Your task to perform on an android device: Open calendar and show me the fourth week of next month Image 0: 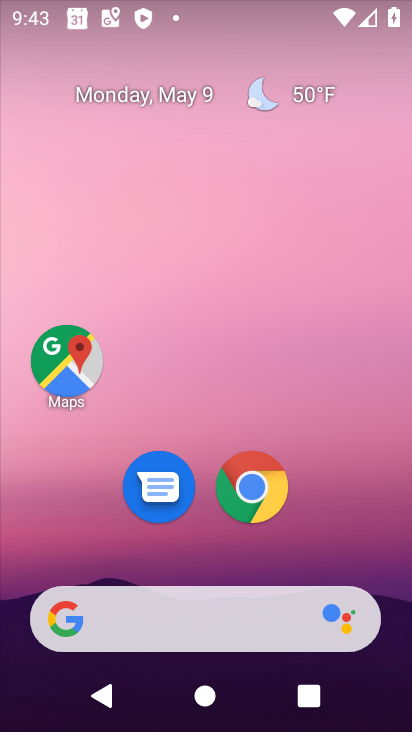
Step 0: drag from (50, 493) to (195, 159)
Your task to perform on an android device: Open calendar and show me the fourth week of next month Image 1: 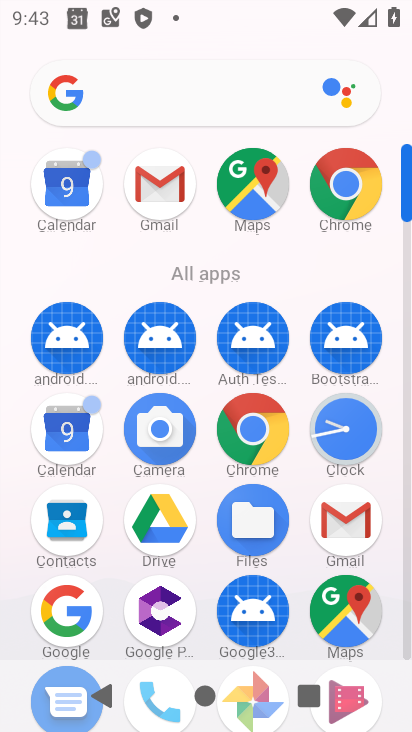
Step 1: click (50, 418)
Your task to perform on an android device: Open calendar and show me the fourth week of next month Image 2: 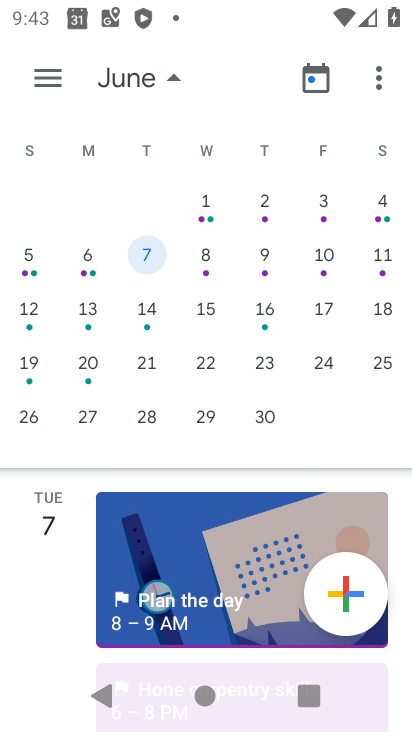
Step 2: drag from (375, 321) to (8, 267)
Your task to perform on an android device: Open calendar and show me the fourth week of next month Image 3: 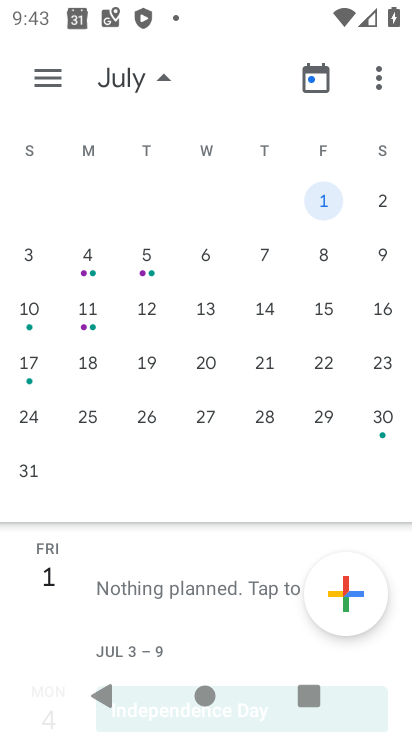
Step 3: drag from (75, 260) to (409, 251)
Your task to perform on an android device: Open calendar and show me the fourth week of next month Image 4: 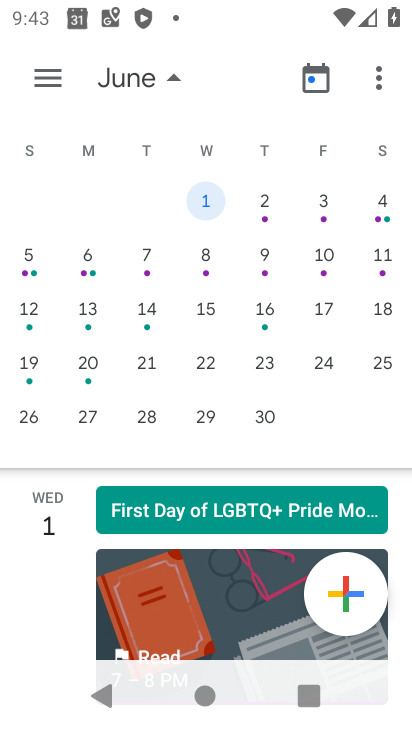
Step 4: click (191, 359)
Your task to perform on an android device: Open calendar and show me the fourth week of next month Image 5: 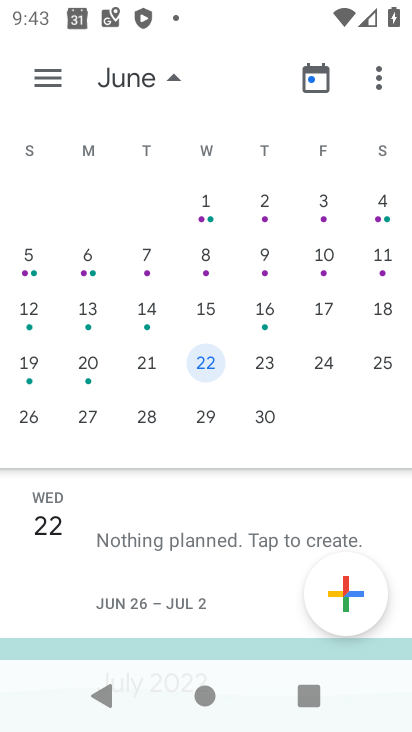
Step 5: click (146, 329)
Your task to perform on an android device: Open calendar and show me the fourth week of next month Image 6: 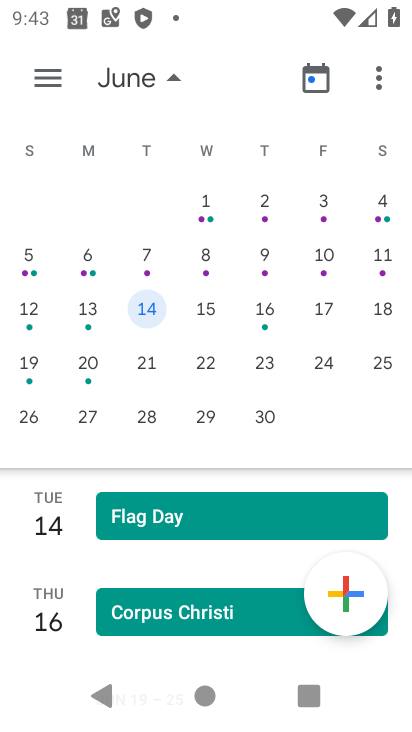
Step 6: click (100, 313)
Your task to perform on an android device: Open calendar and show me the fourth week of next month Image 7: 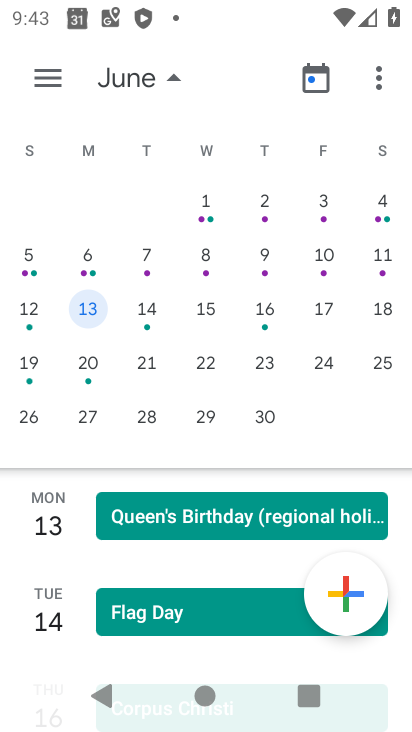
Step 7: click (147, 362)
Your task to perform on an android device: Open calendar and show me the fourth week of next month Image 8: 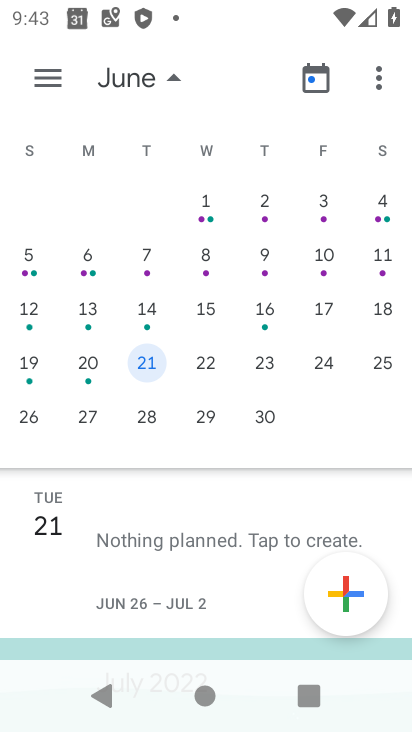
Step 8: click (214, 365)
Your task to perform on an android device: Open calendar and show me the fourth week of next month Image 9: 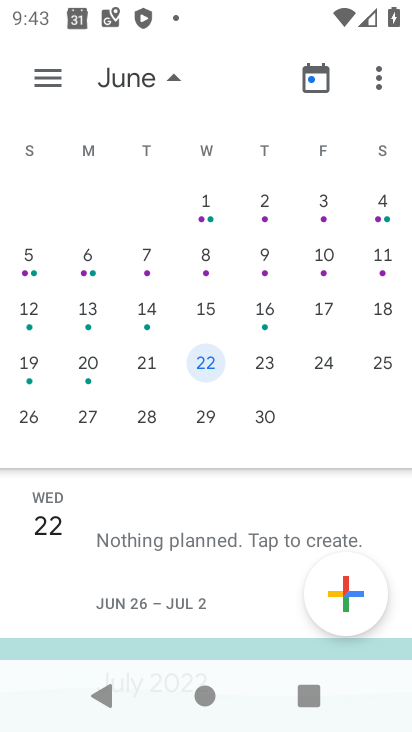
Step 9: click (253, 363)
Your task to perform on an android device: Open calendar and show me the fourth week of next month Image 10: 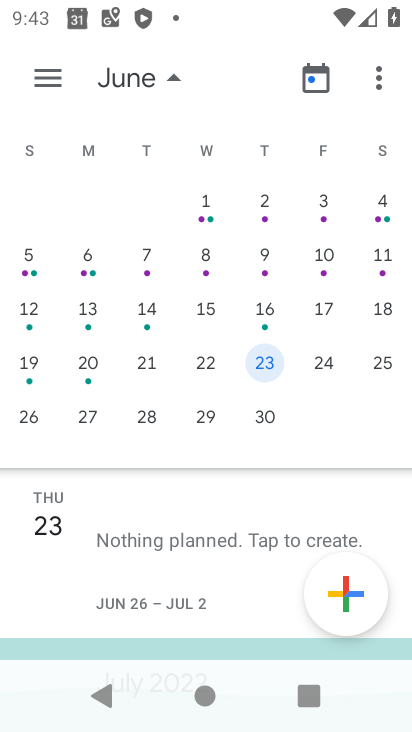
Step 10: click (336, 363)
Your task to perform on an android device: Open calendar and show me the fourth week of next month Image 11: 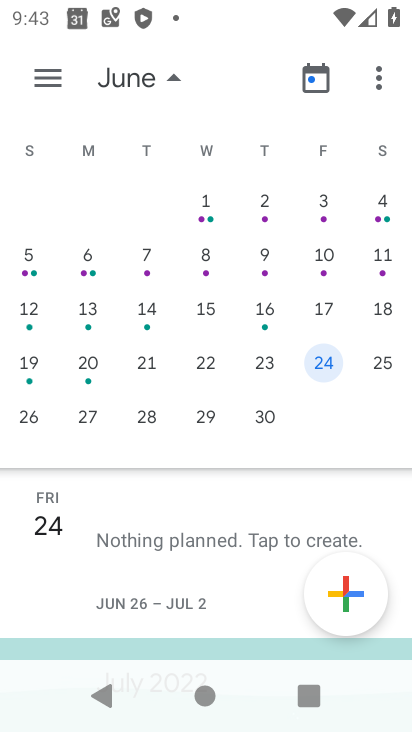
Step 11: click (258, 352)
Your task to perform on an android device: Open calendar and show me the fourth week of next month Image 12: 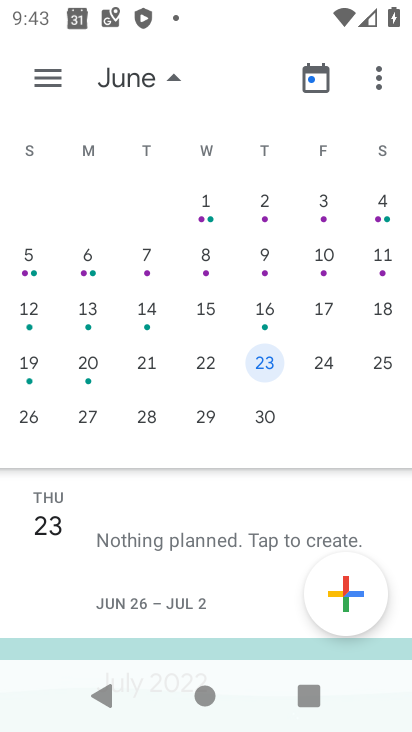
Step 12: task complete